Your task to perform on an android device: delete the emails in spam in the gmail app Image 0: 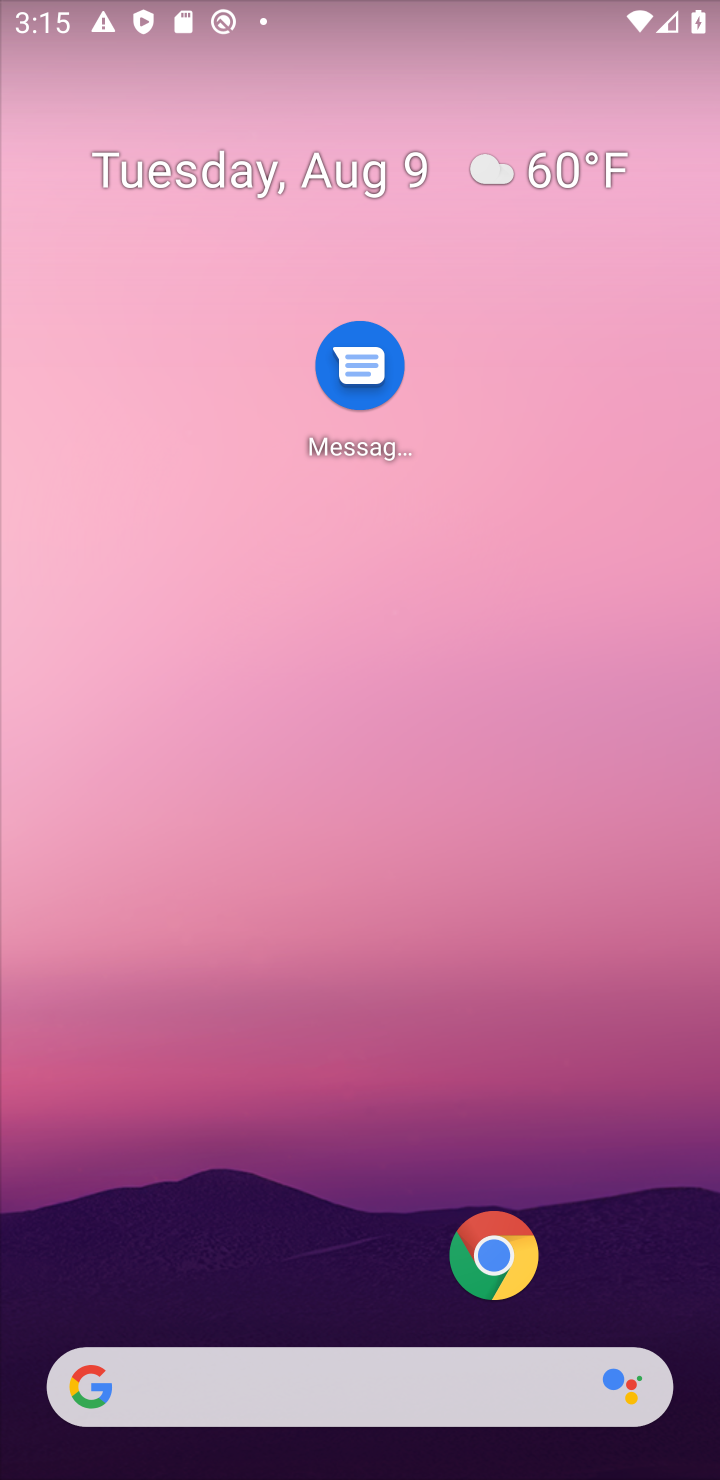
Step 0: drag from (293, 1105) to (314, 538)
Your task to perform on an android device: delete the emails in spam in the gmail app Image 1: 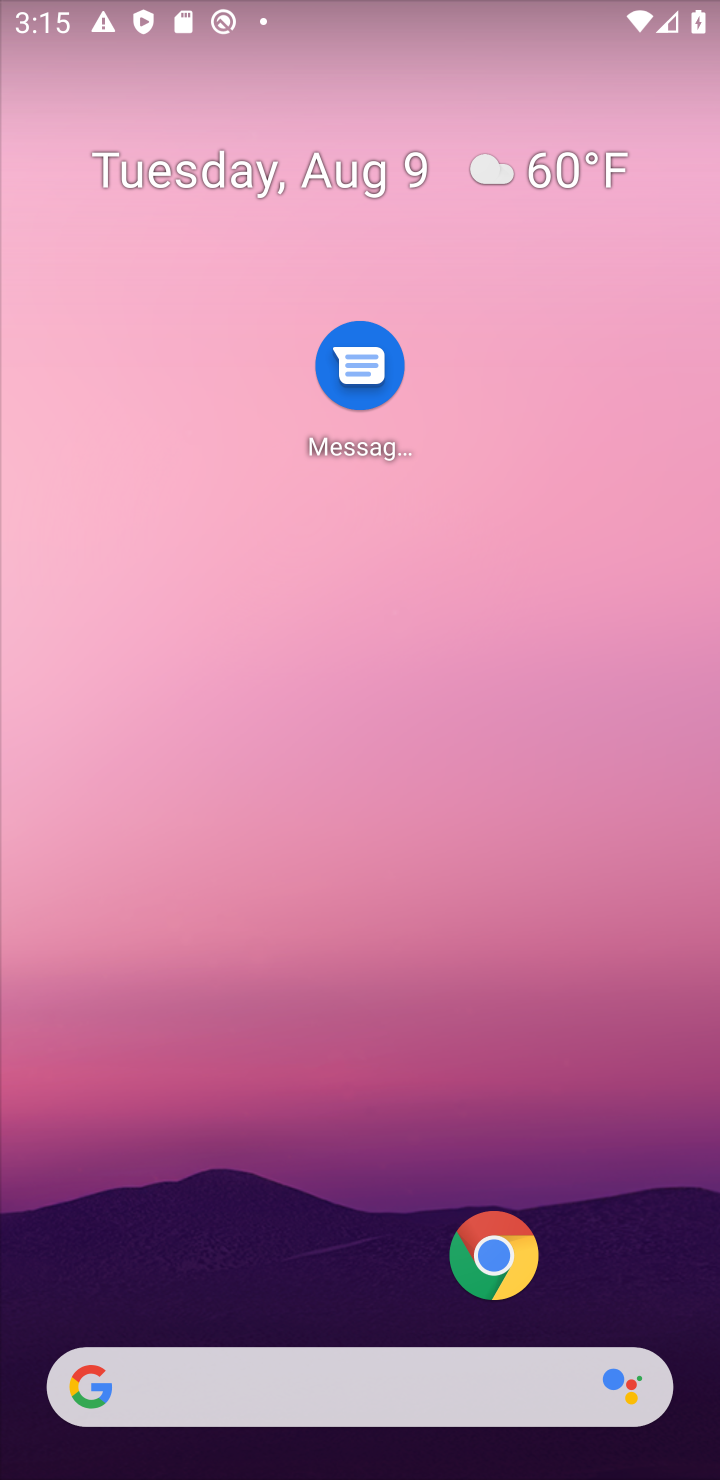
Step 1: drag from (308, 1234) to (488, 595)
Your task to perform on an android device: delete the emails in spam in the gmail app Image 2: 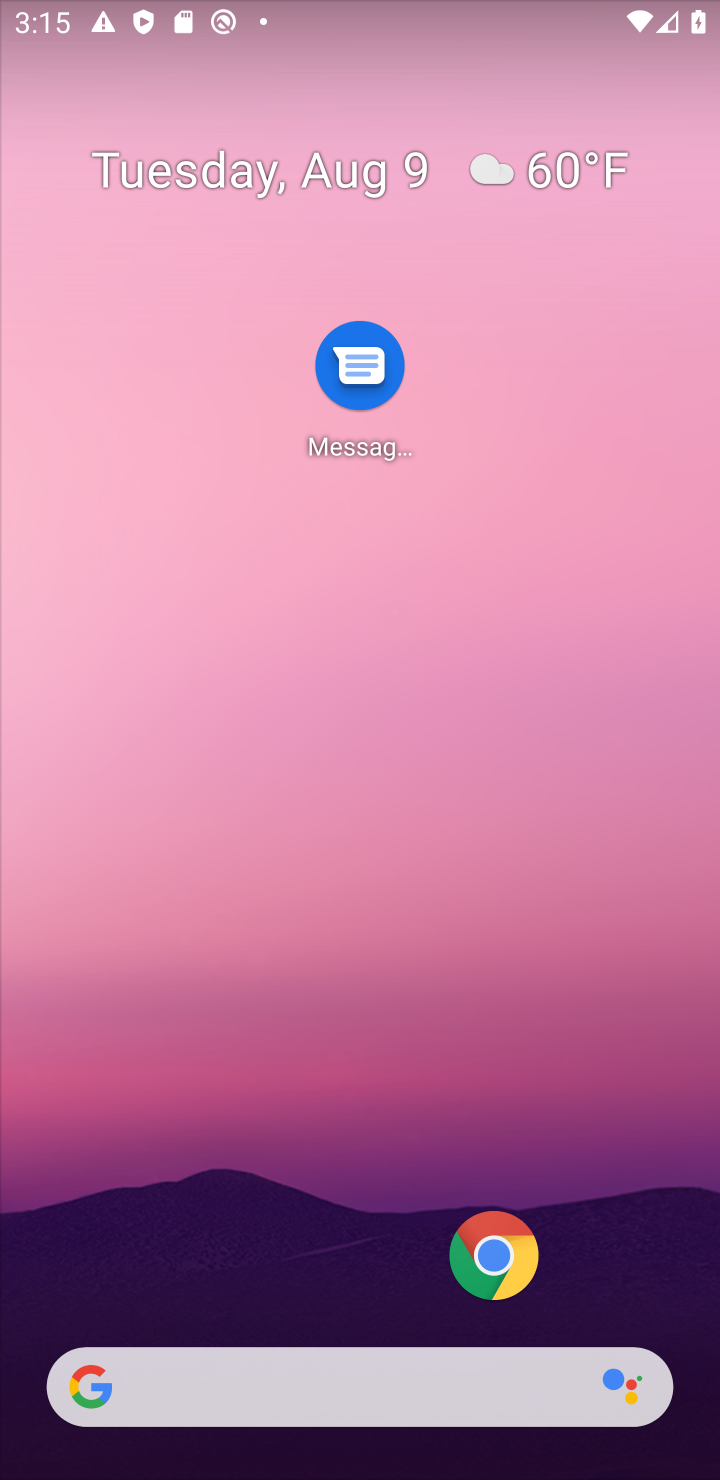
Step 2: drag from (215, 1335) to (336, 349)
Your task to perform on an android device: delete the emails in spam in the gmail app Image 3: 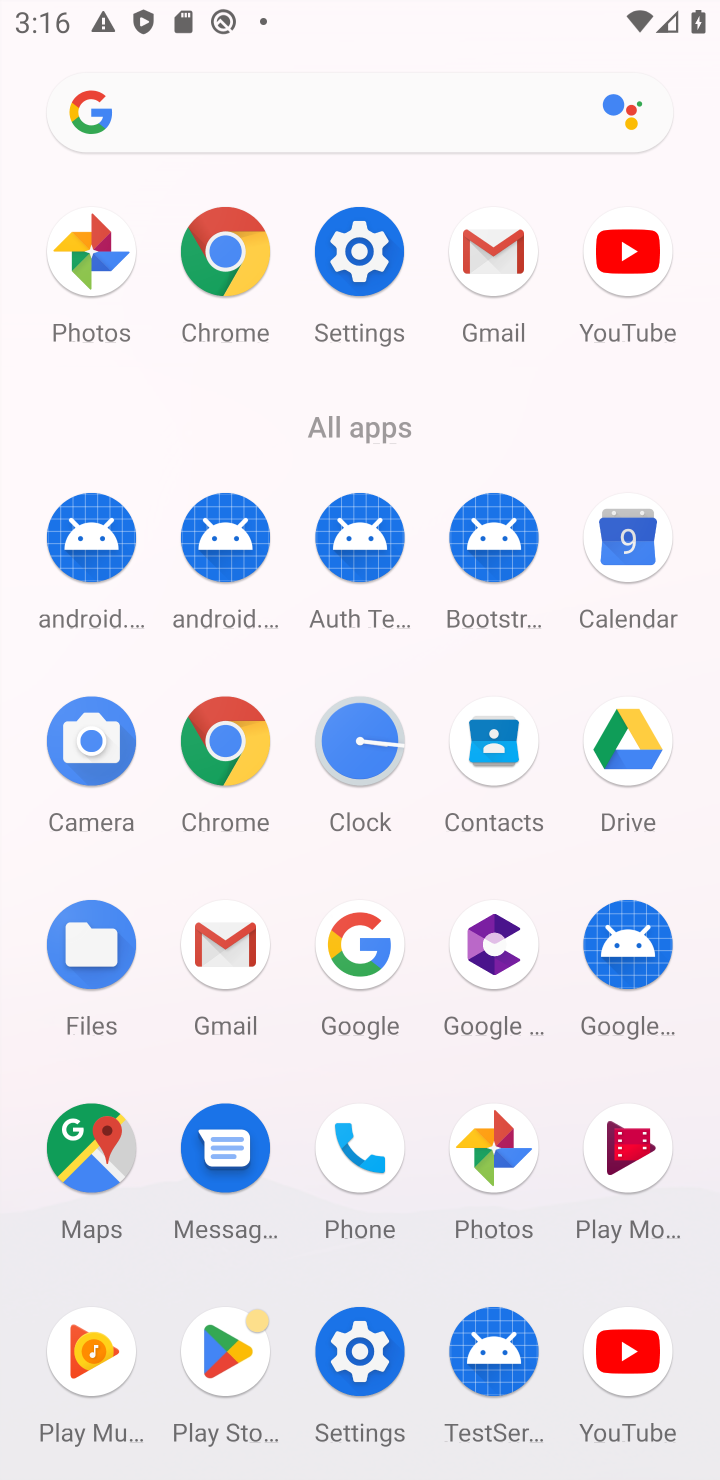
Step 3: click (242, 240)
Your task to perform on an android device: delete the emails in spam in the gmail app Image 4: 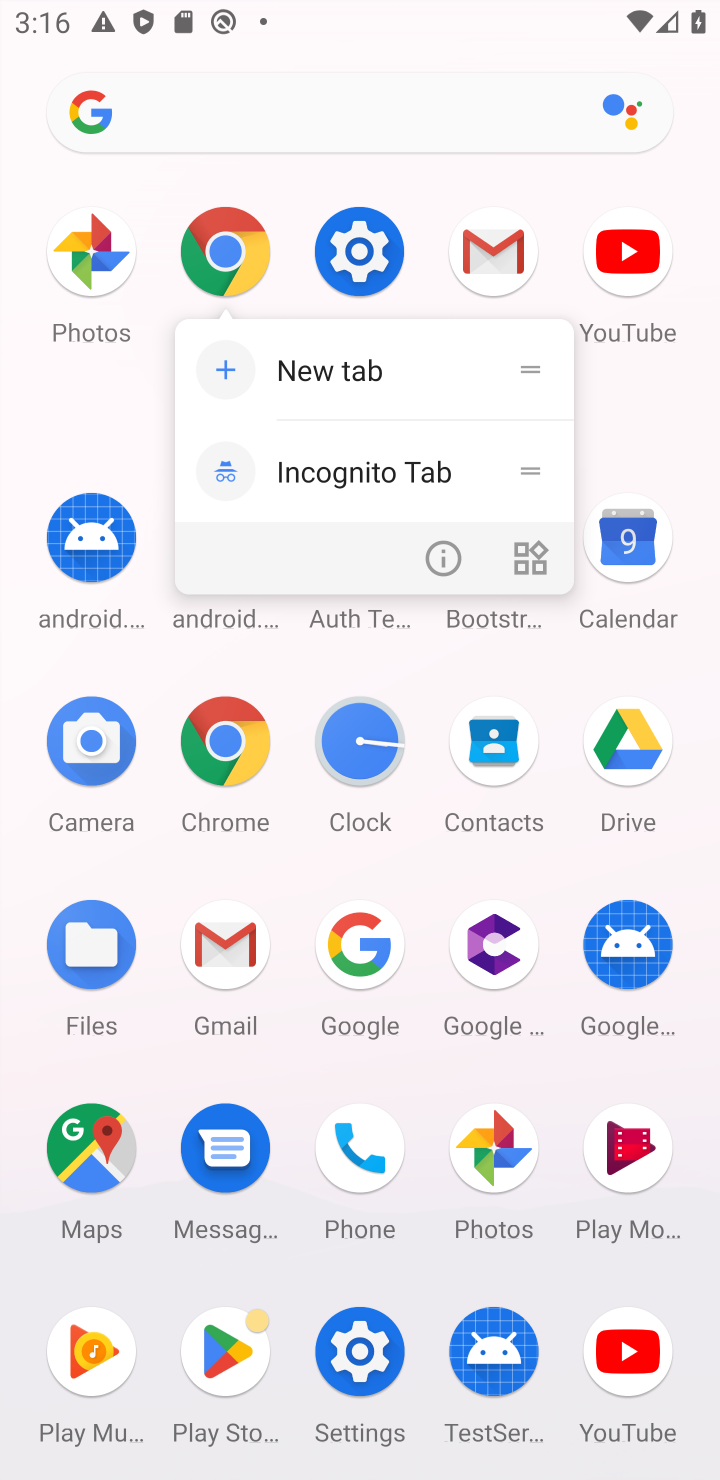
Step 4: click (230, 240)
Your task to perform on an android device: delete the emails in spam in the gmail app Image 5: 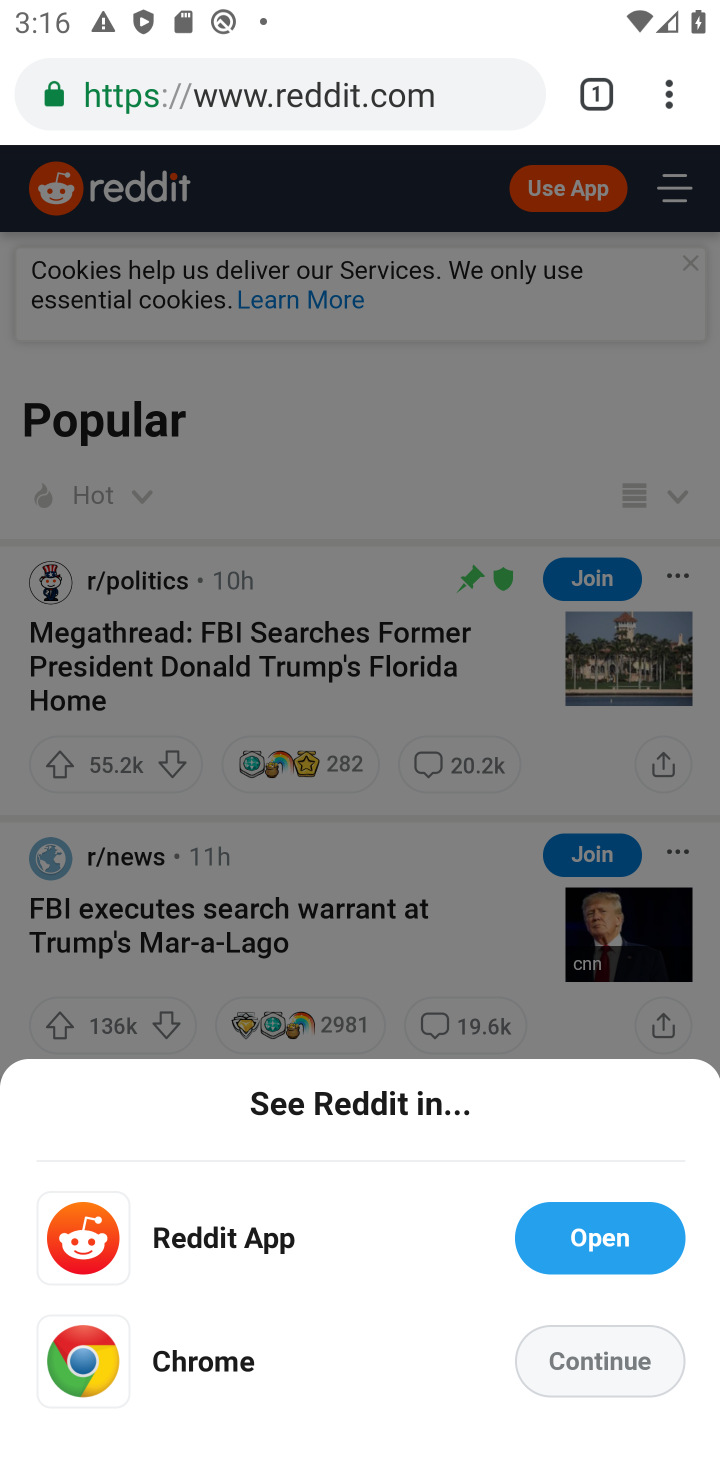
Step 5: press home button
Your task to perform on an android device: delete the emails in spam in the gmail app Image 6: 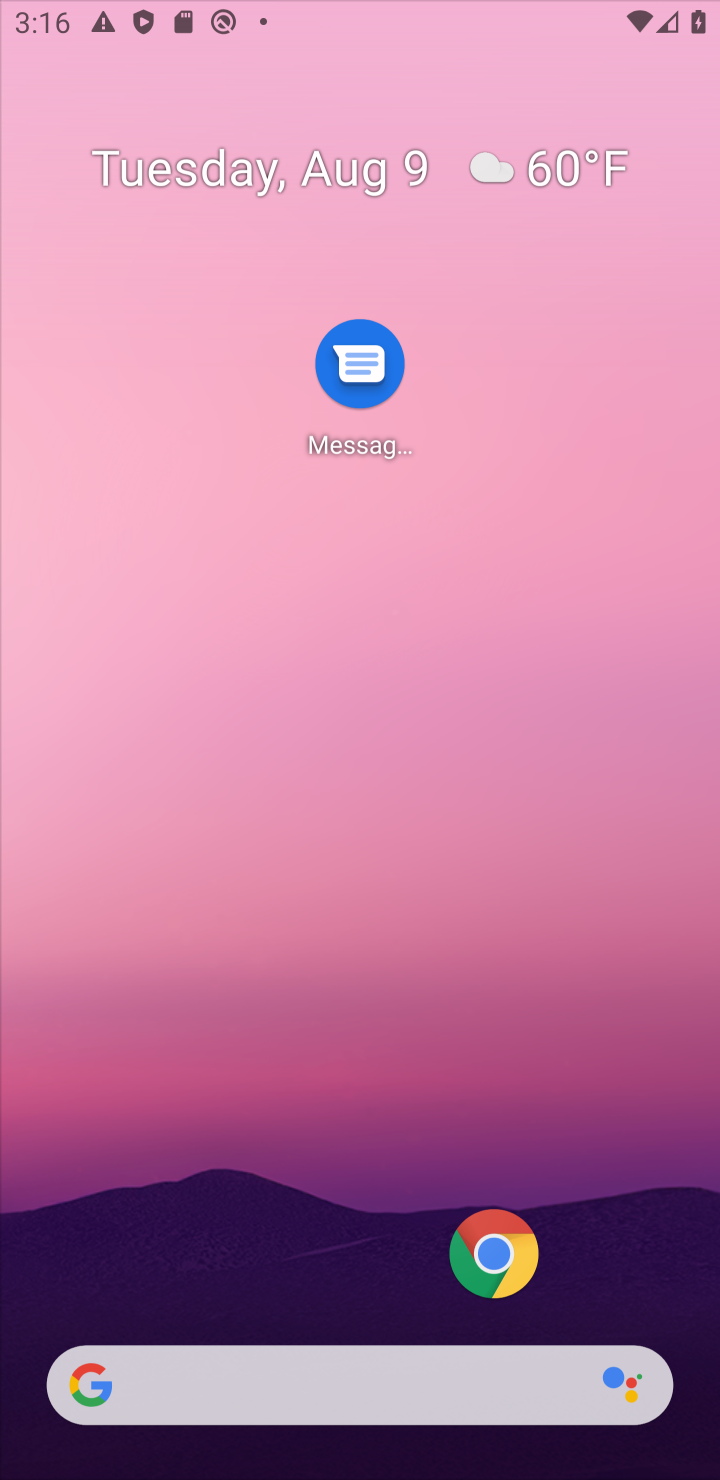
Step 6: press home button
Your task to perform on an android device: delete the emails in spam in the gmail app Image 7: 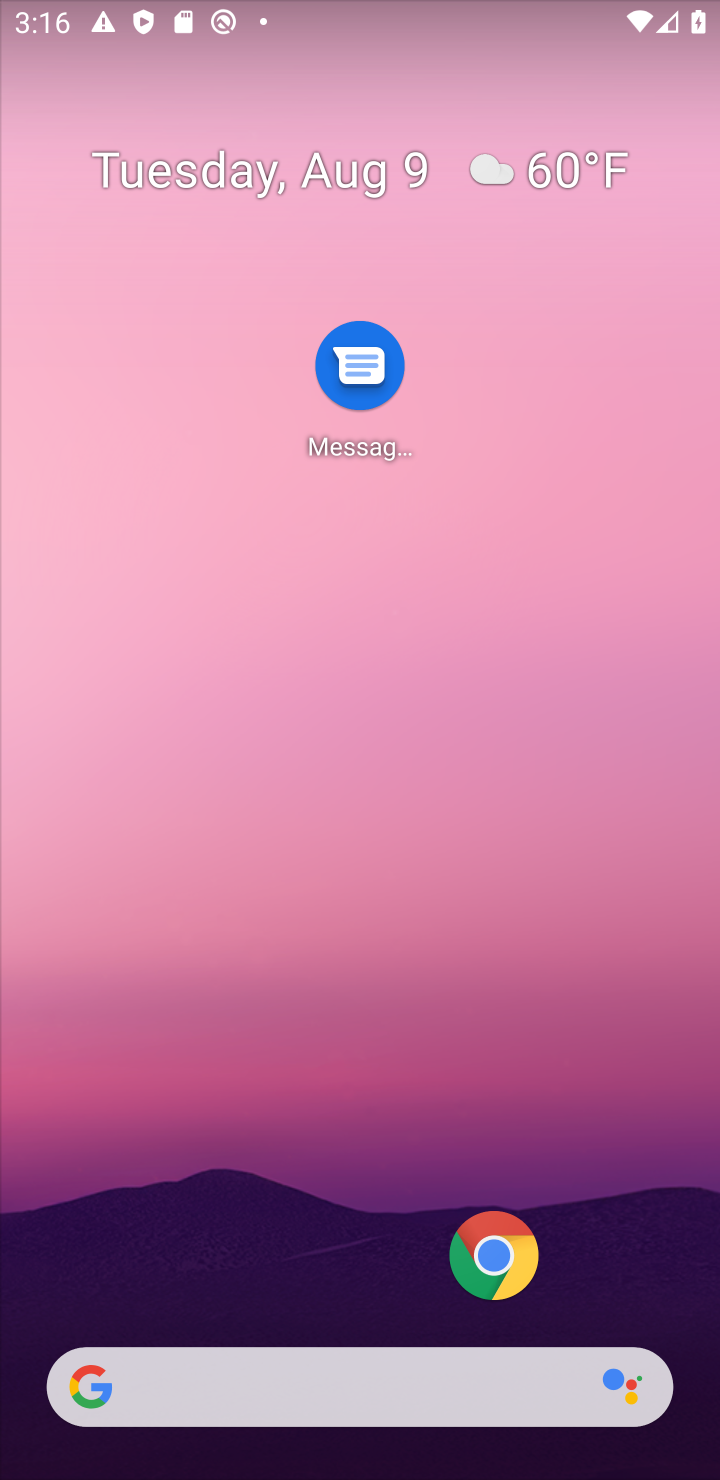
Step 7: drag from (212, 1157) to (338, 438)
Your task to perform on an android device: delete the emails in spam in the gmail app Image 8: 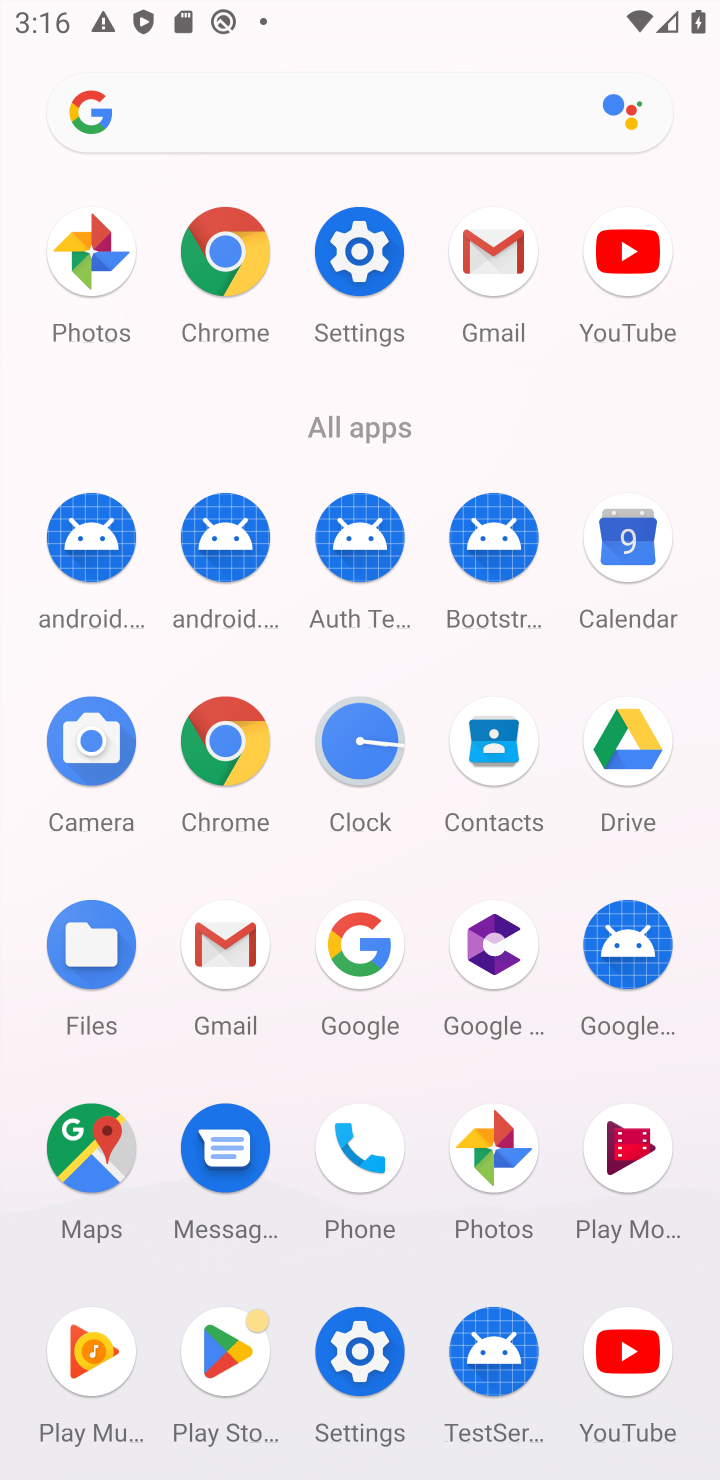
Step 8: click (192, 929)
Your task to perform on an android device: delete the emails in spam in the gmail app Image 9: 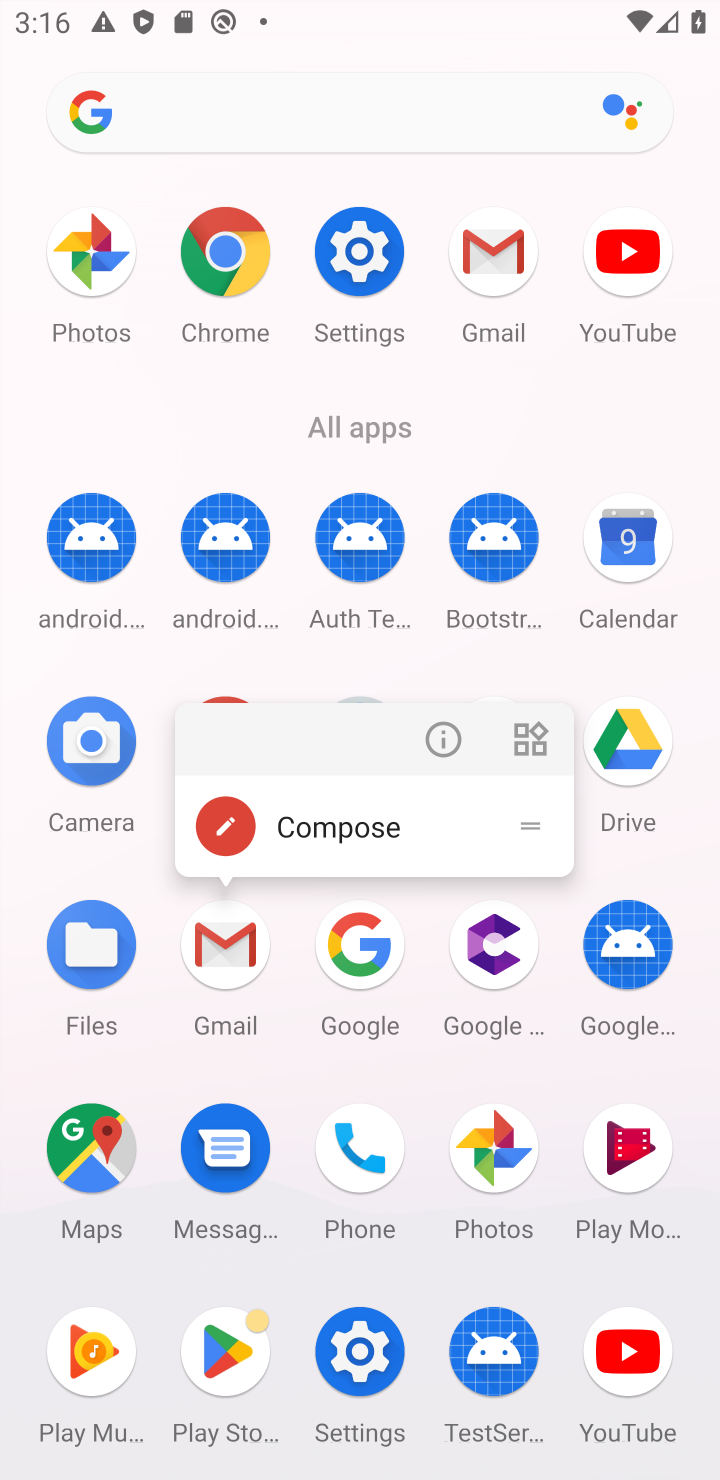
Step 9: click (247, 929)
Your task to perform on an android device: delete the emails in spam in the gmail app Image 10: 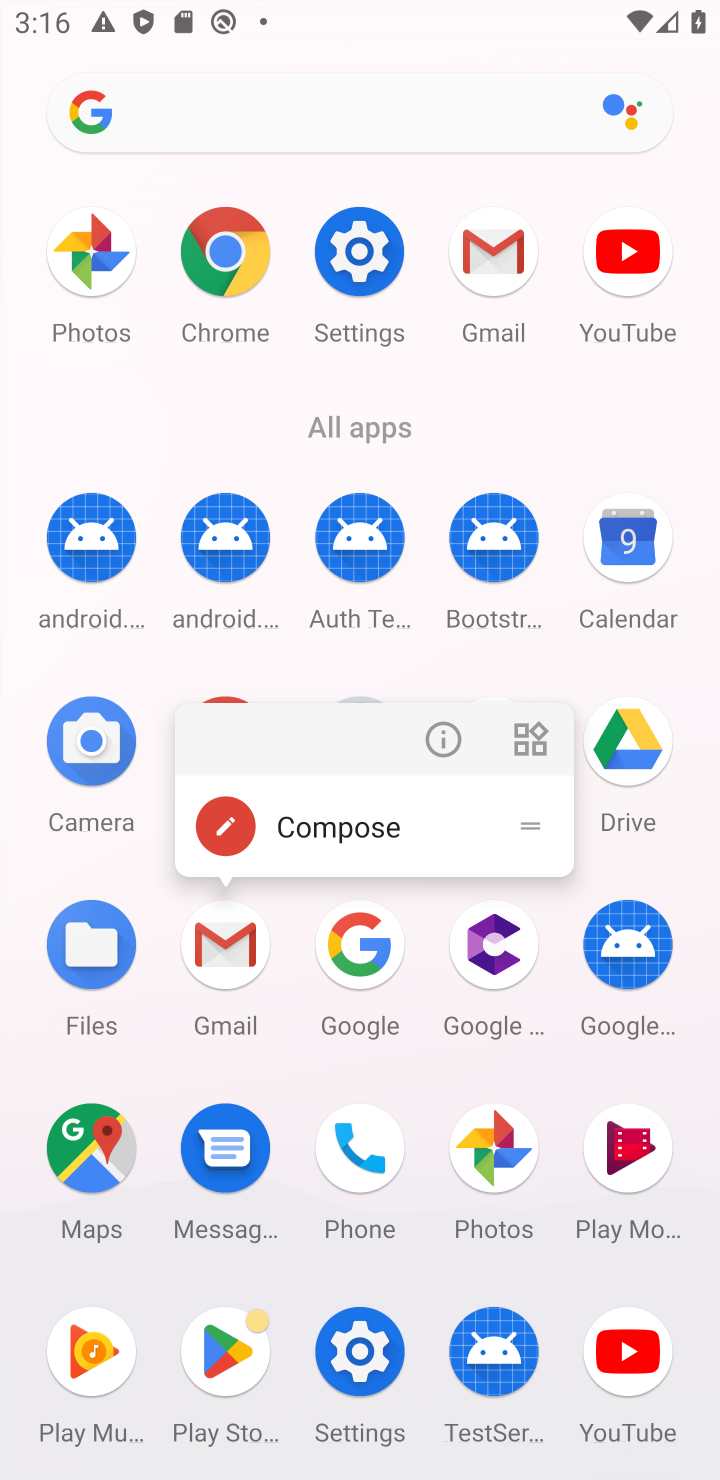
Step 10: click (238, 956)
Your task to perform on an android device: delete the emails in spam in the gmail app Image 11: 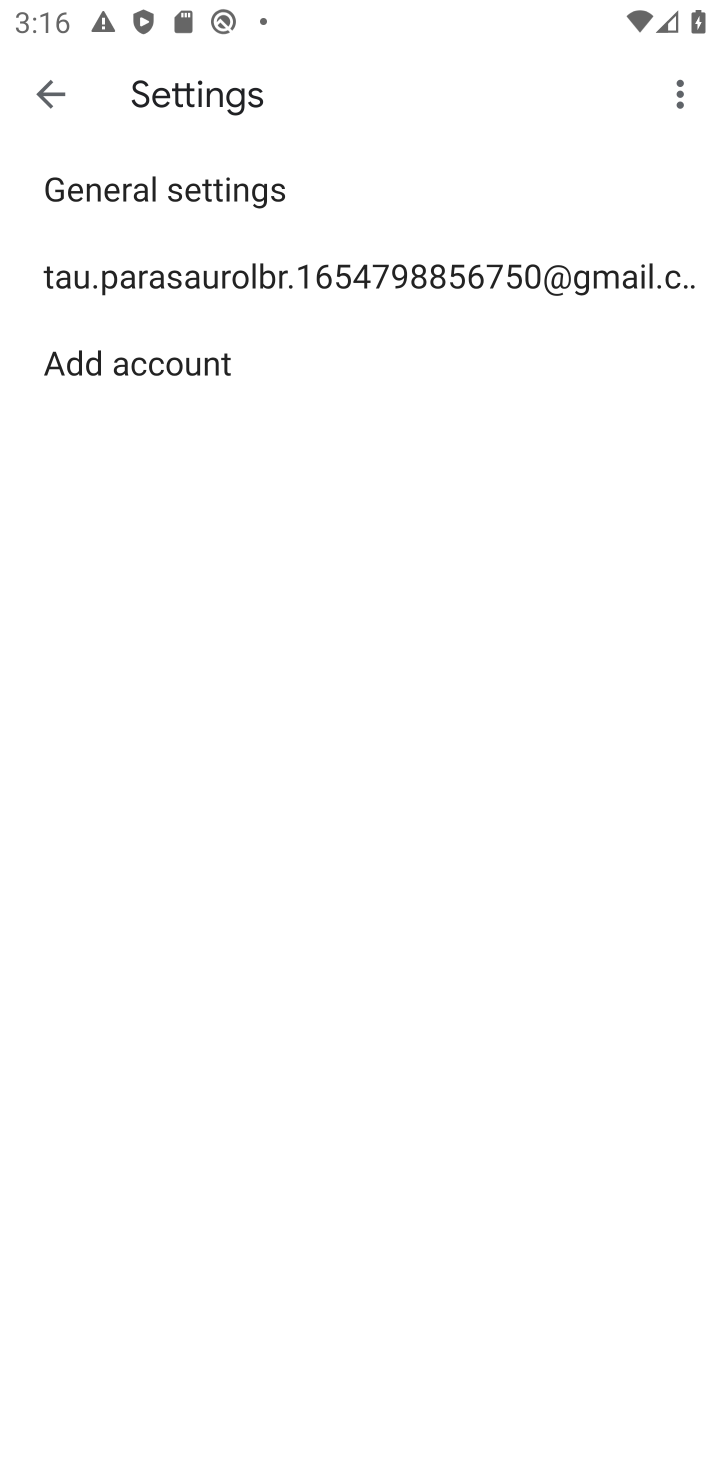
Step 11: click (53, 115)
Your task to perform on an android device: delete the emails in spam in the gmail app Image 12: 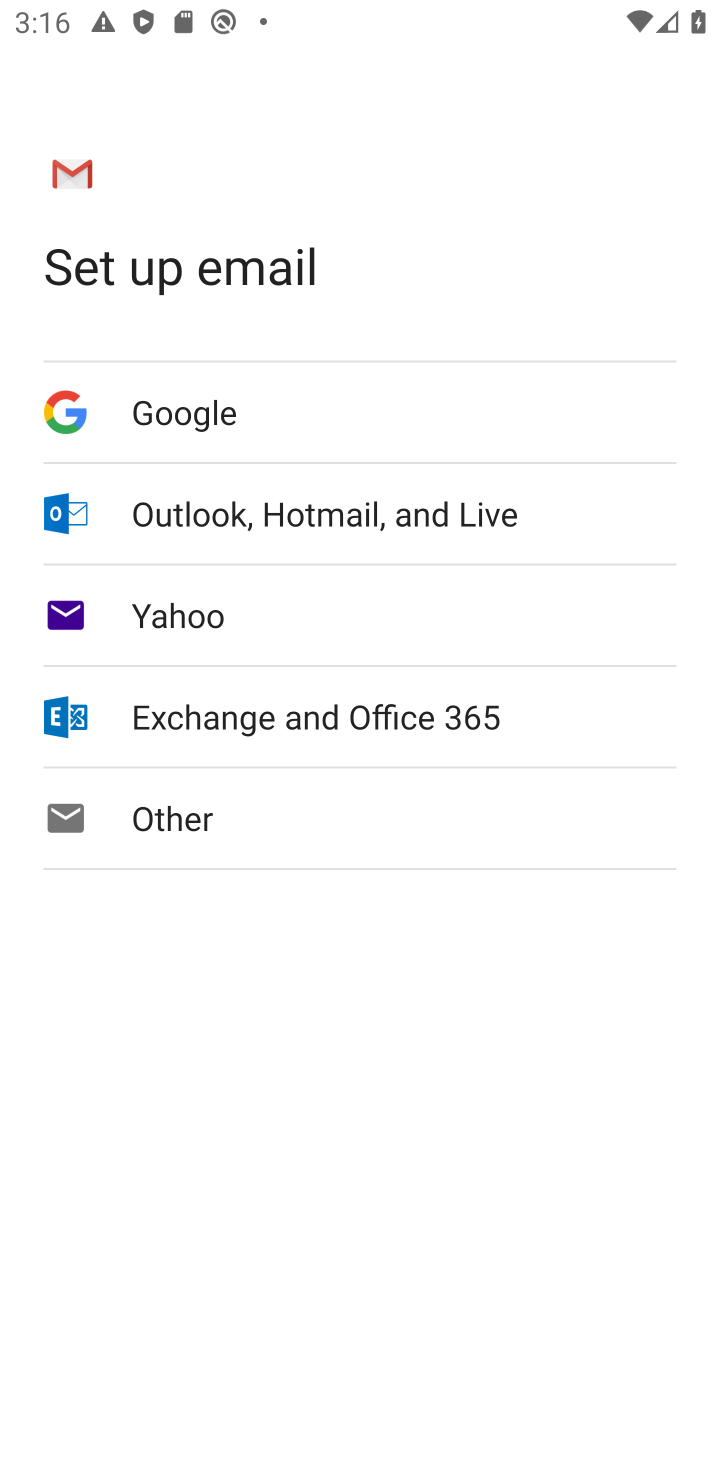
Step 12: click (62, 90)
Your task to perform on an android device: delete the emails in spam in the gmail app Image 13: 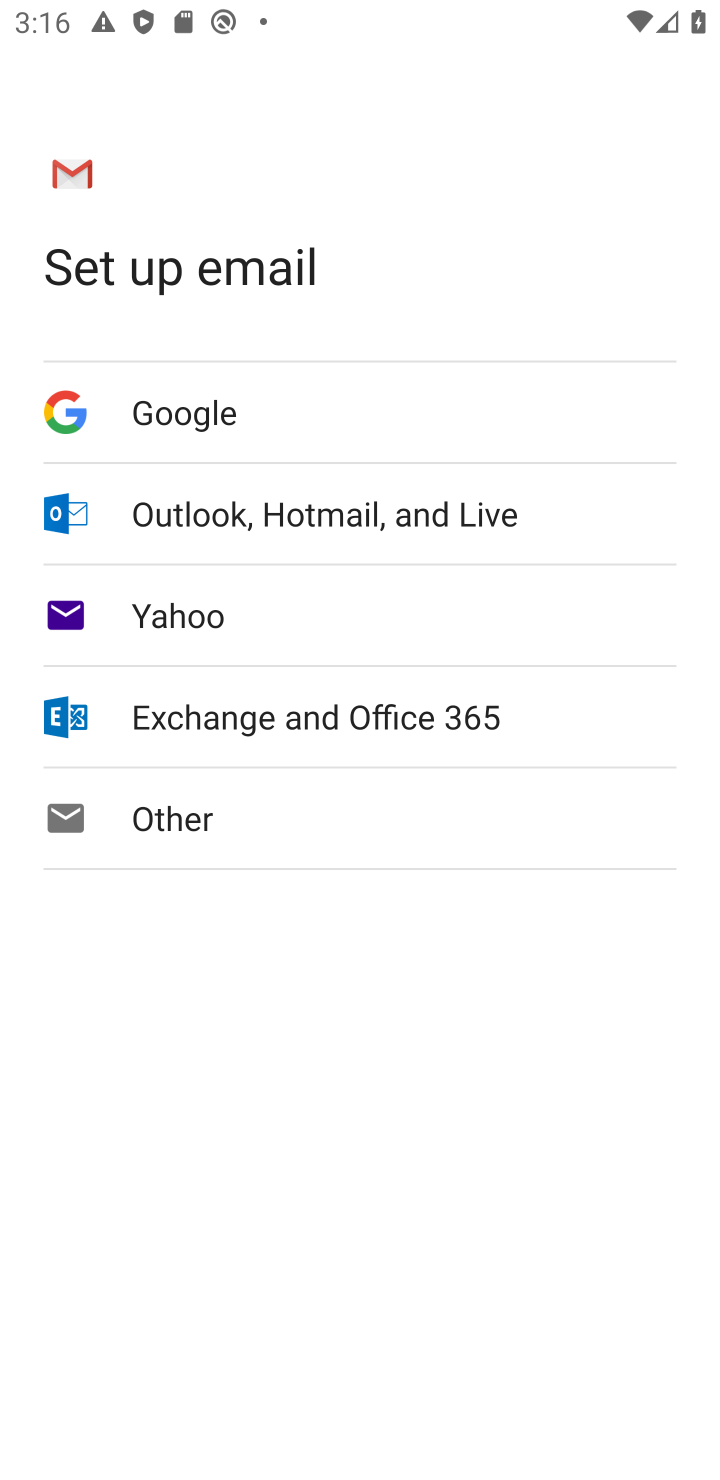
Step 13: press back button
Your task to perform on an android device: delete the emails in spam in the gmail app Image 14: 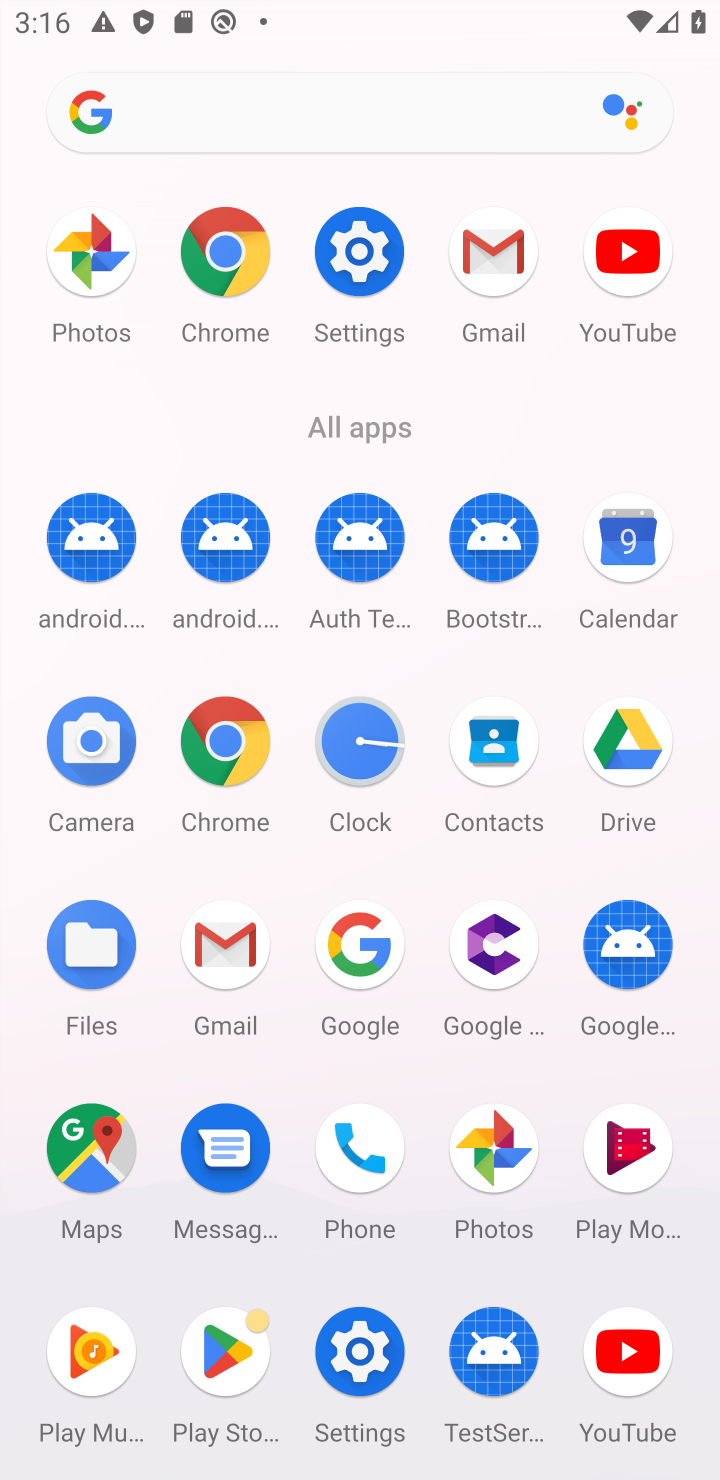
Step 14: click (491, 264)
Your task to perform on an android device: delete the emails in spam in the gmail app Image 15: 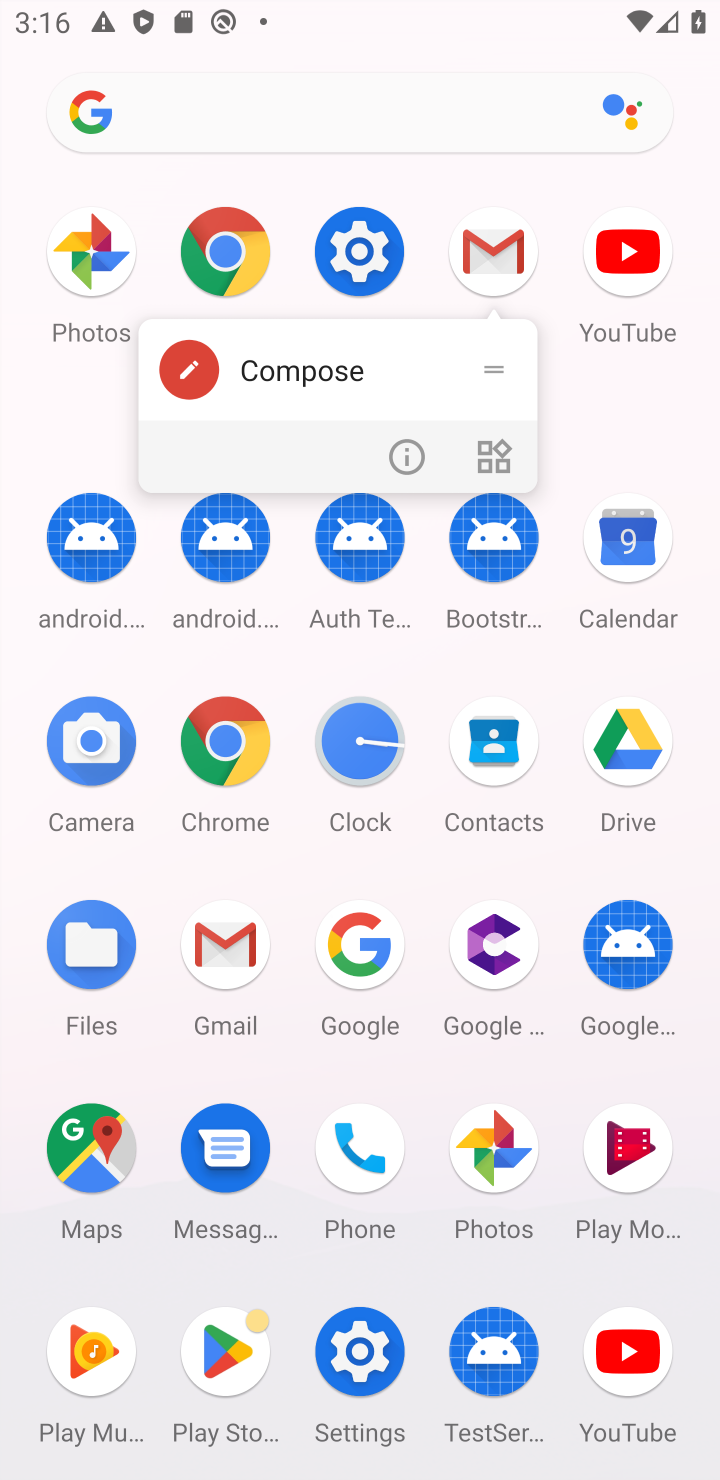
Step 15: click (478, 252)
Your task to perform on an android device: delete the emails in spam in the gmail app Image 16: 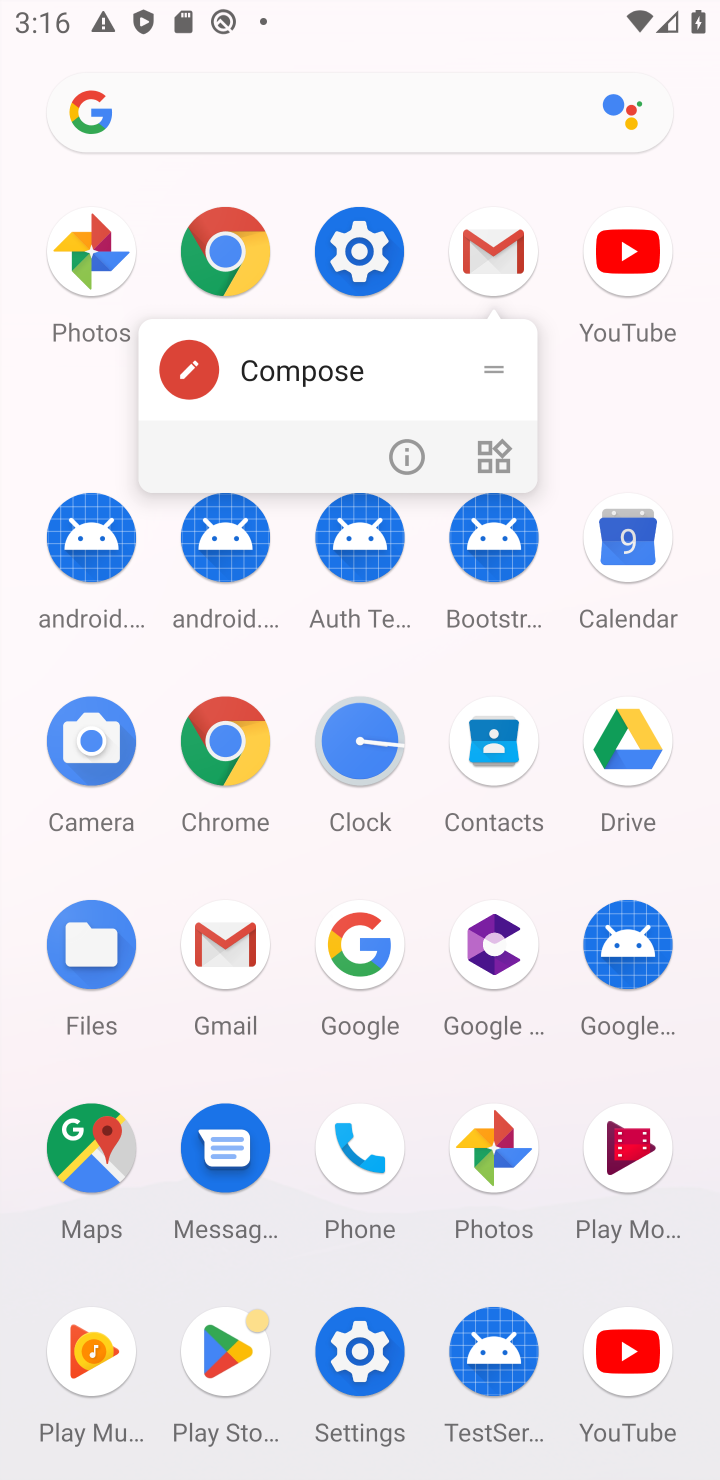
Step 16: click (478, 252)
Your task to perform on an android device: delete the emails in spam in the gmail app Image 17: 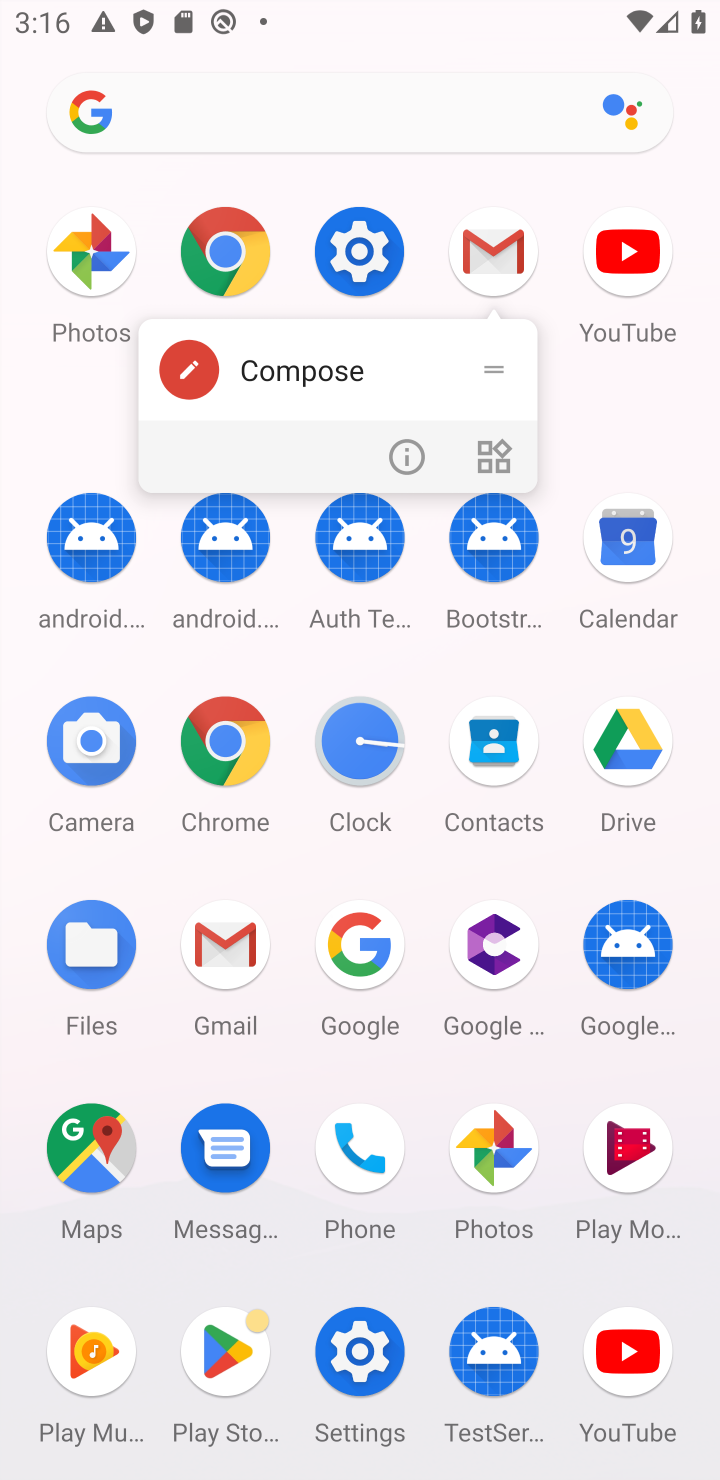
Step 17: click (478, 252)
Your task to perform on an android device: delete the emails in spam in the gmail app Image 18: 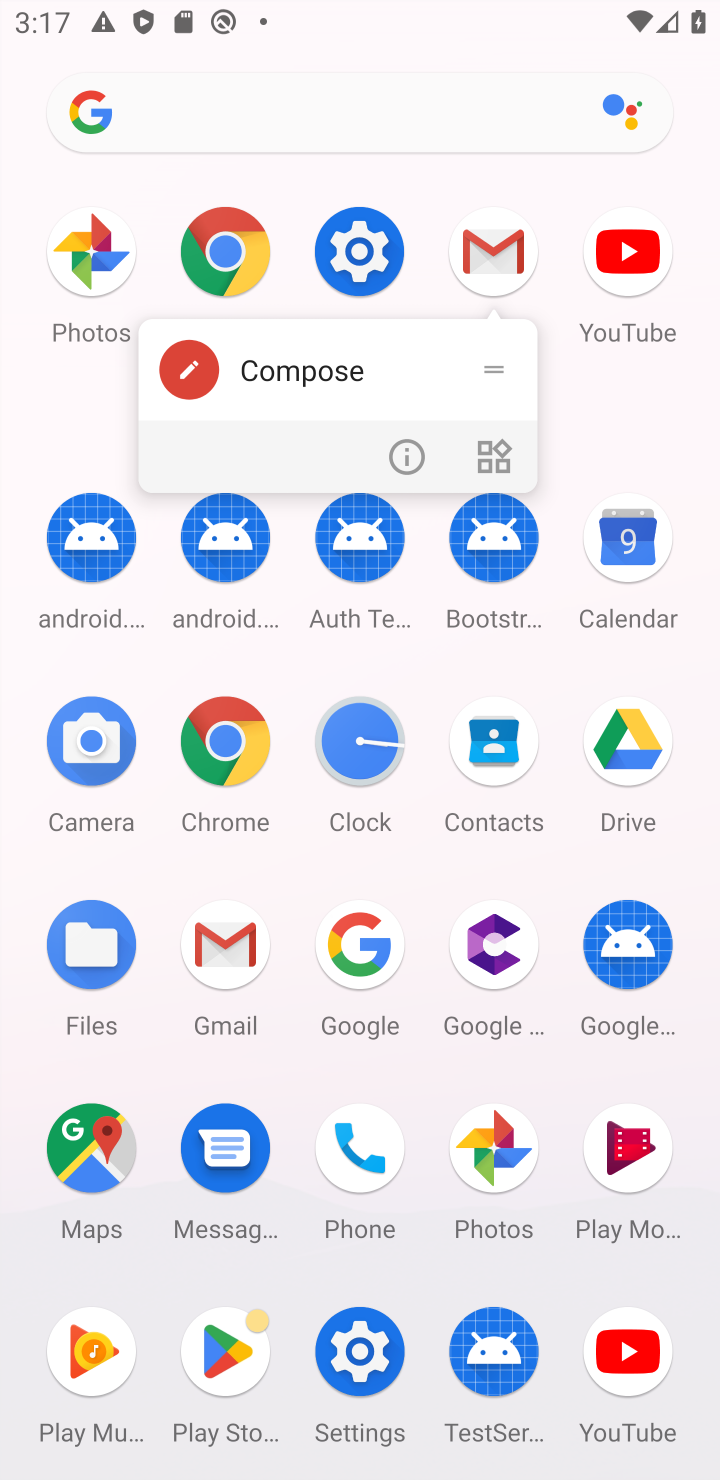
Step 18: click (478, 252)
Your task to perform on an android device: delete the emails in spam in the gmail app Image 19: 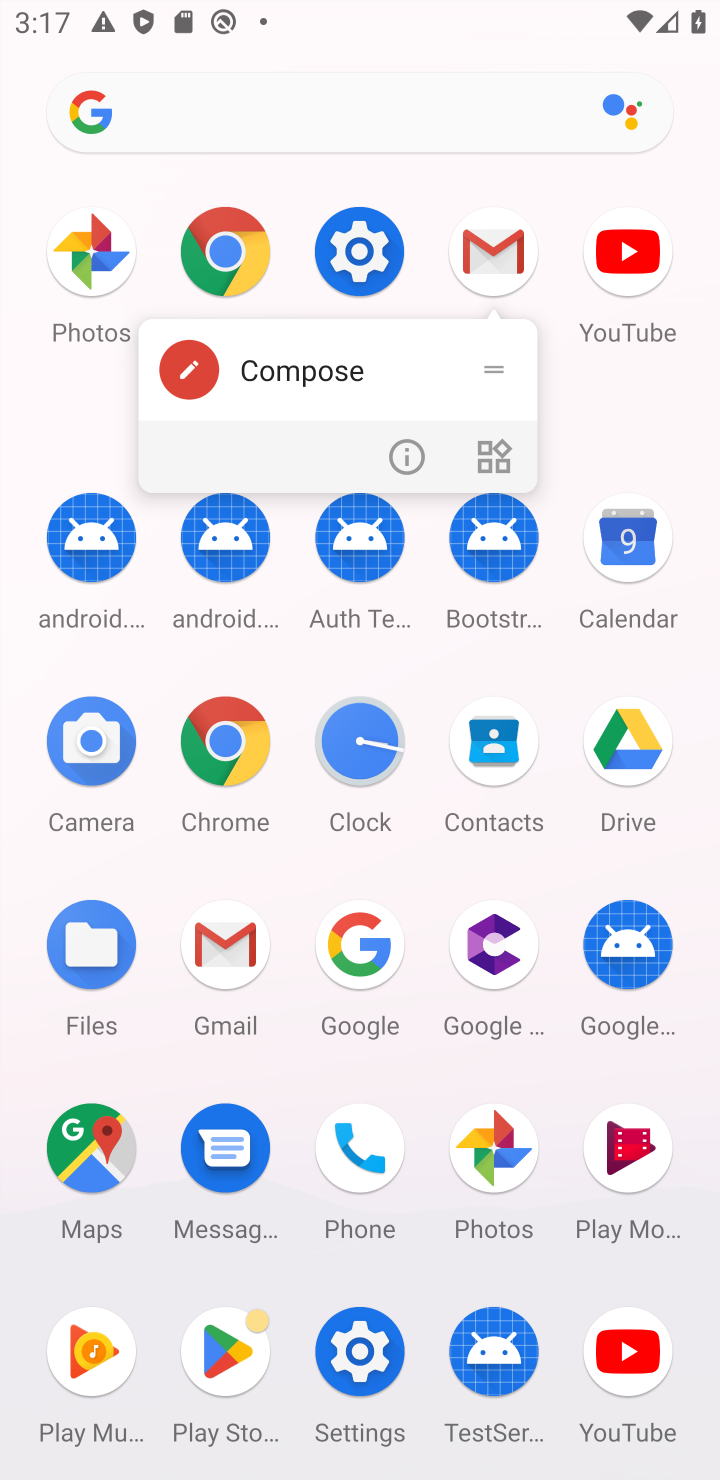
Step 19: click (212, 939)
Your task to perform on an android device: delete the emails in spam in the gmail app Image 20: 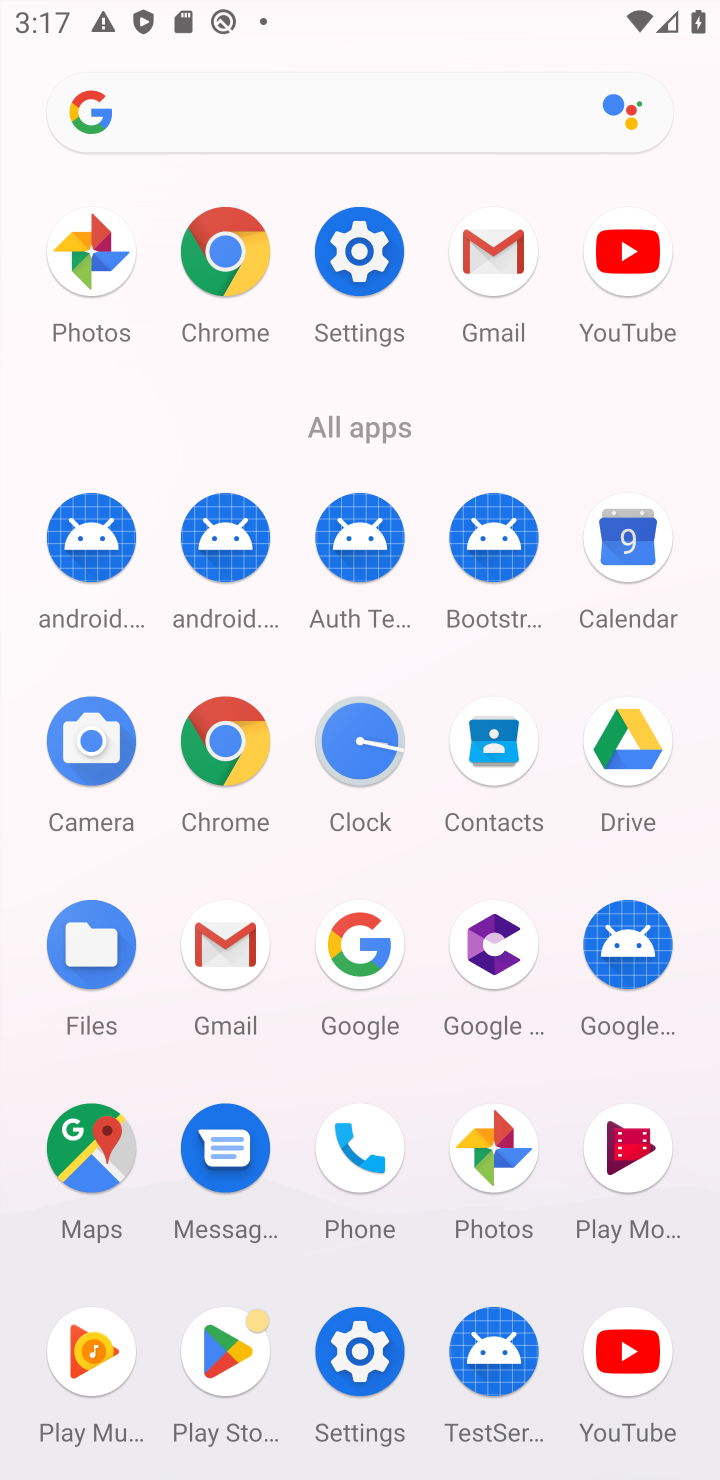
Step 20: click (473, 245)
Your task to perform on an android device: delete the emails in spam in the gmail app Image 21: 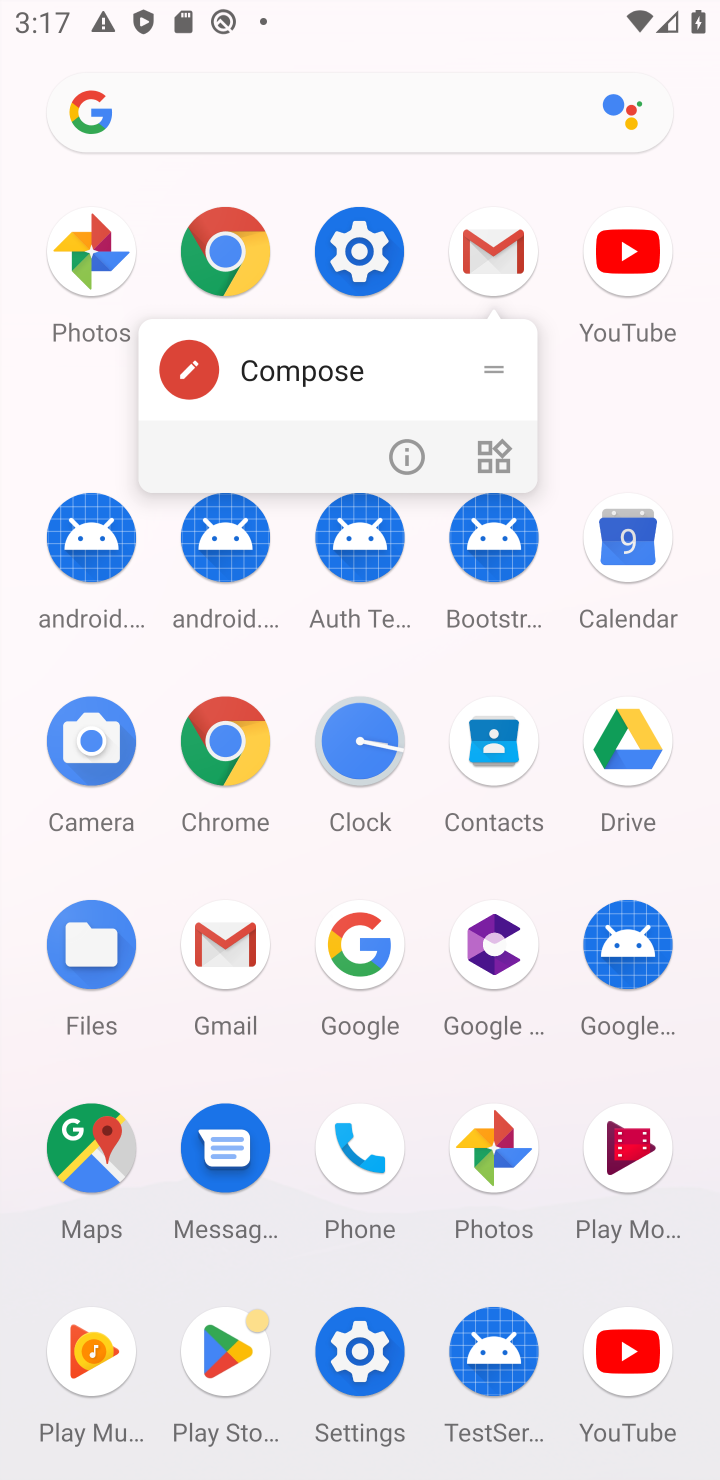
Step 21: click (218, 925)
Your task to perform on an android device: delete the emails in spam in the gmail app Image 22: 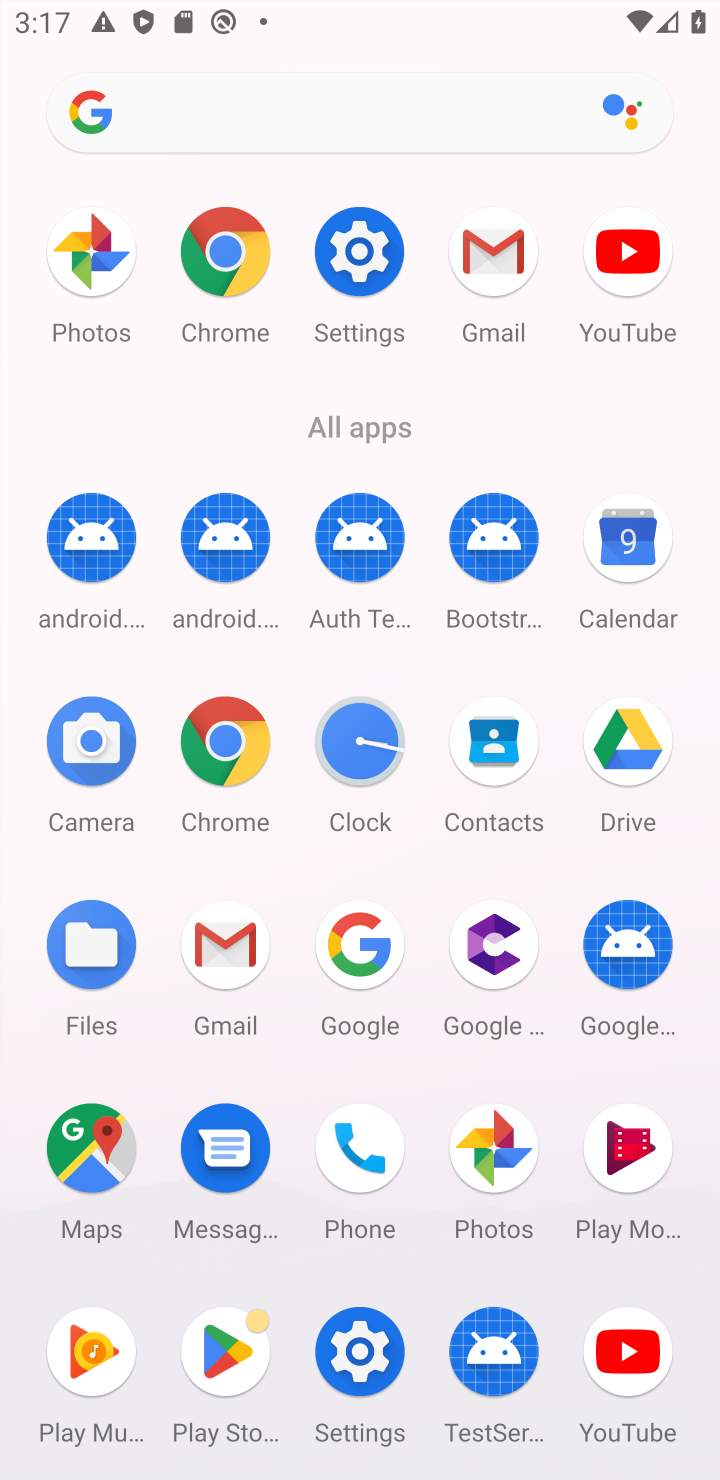
Step 22: click (218, 925)
Your task to perform on an android device: delete the emails in spam in the gmail app Image 23: 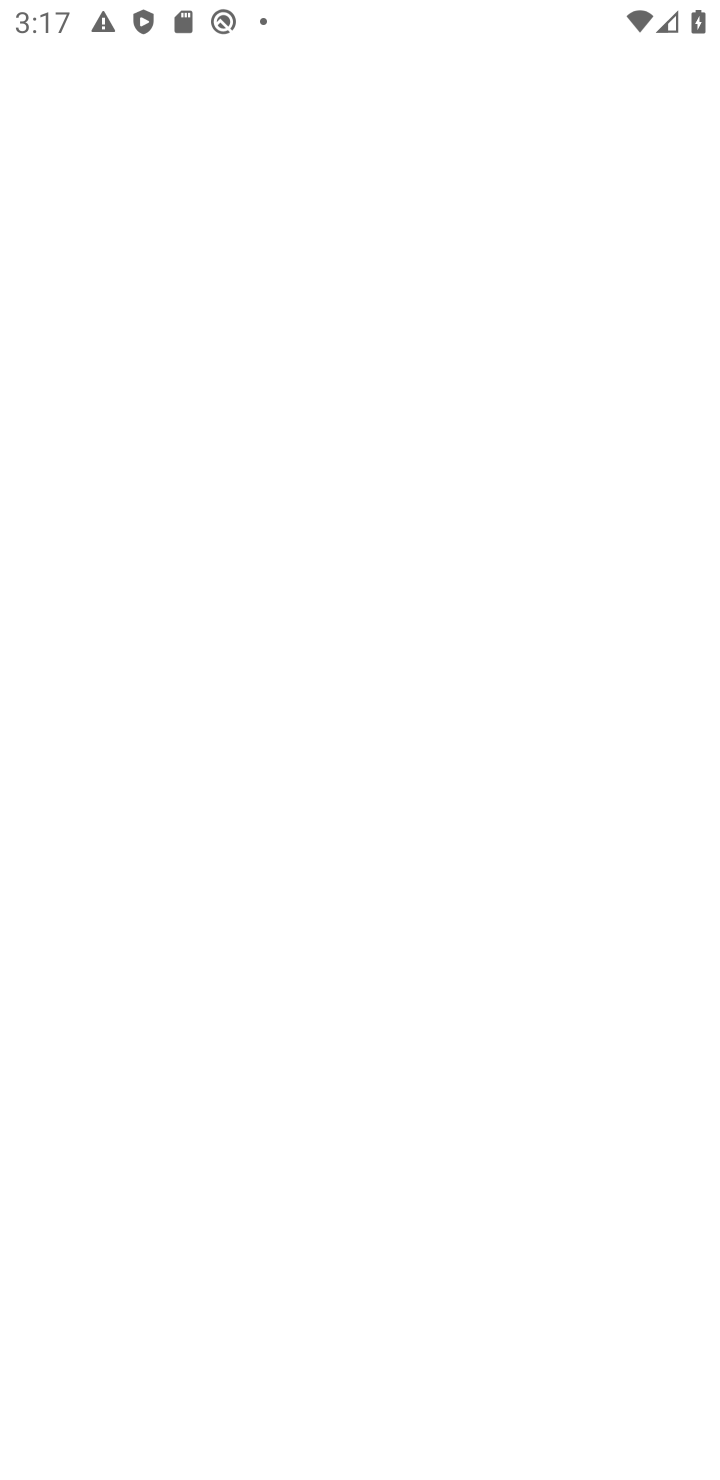
Step 23: click (218, 925)
Your task to perform on an android device: delete the emails in spam in the gmail app Image 24: 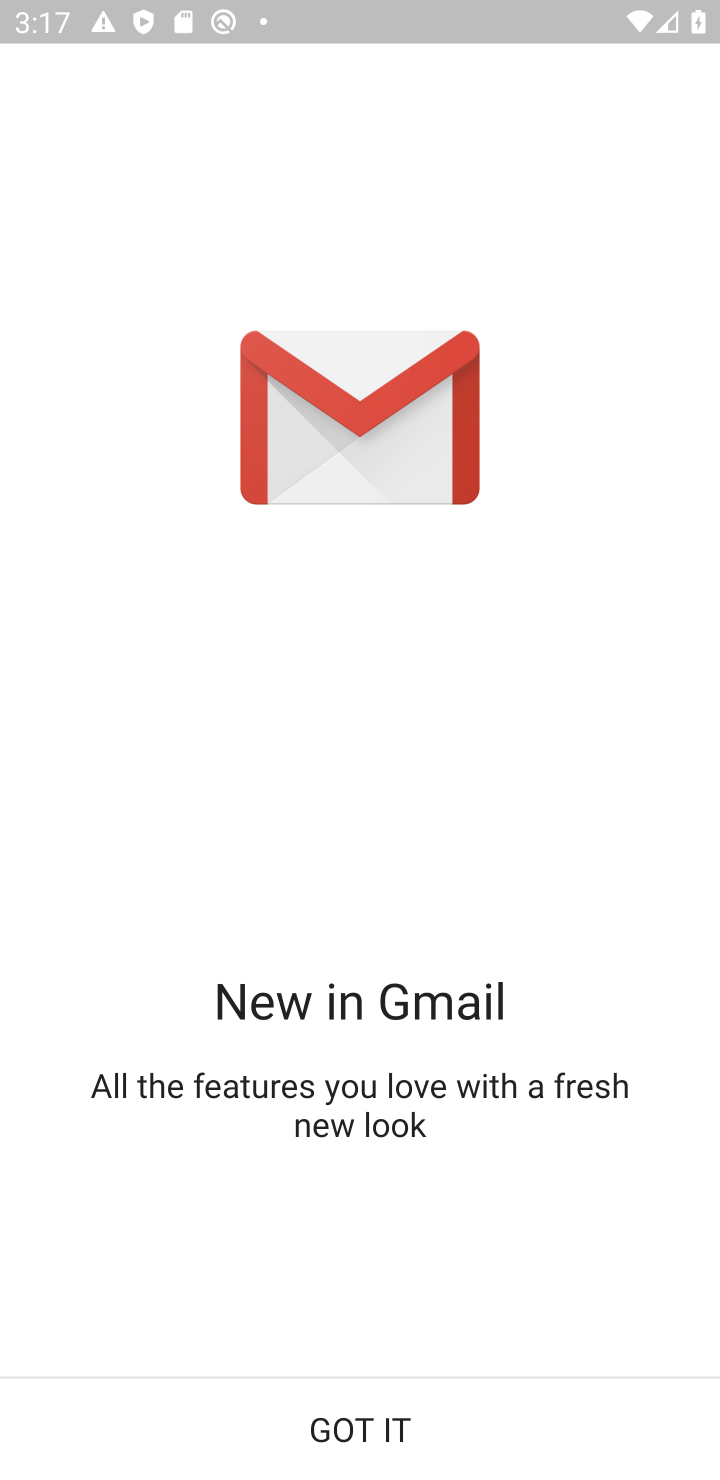
Step 24: click (397, 1397)
Your task to perform on an android device: delete the emails in spam in the gmail app Image 25: 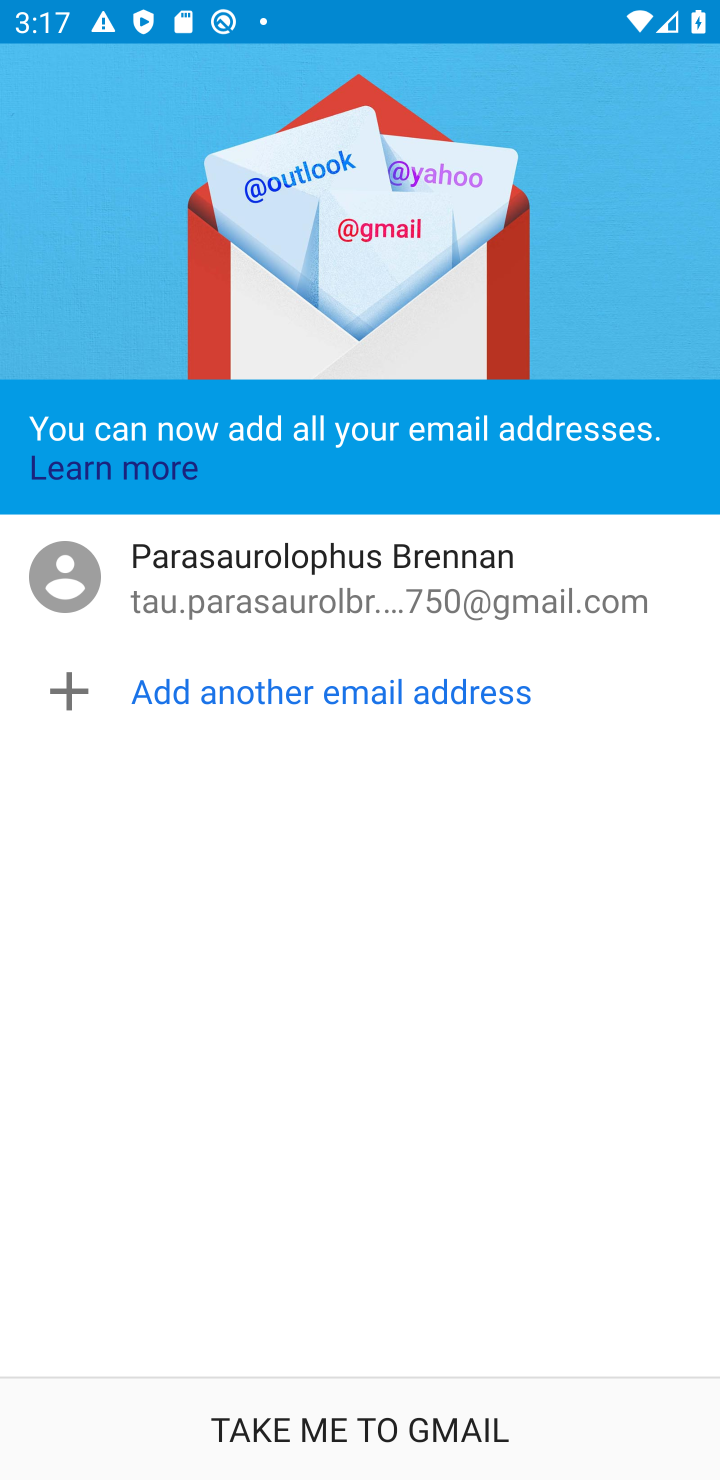
Step 25: click (358, 1417)
Your task to perform on an android device: delete the emails in spam in the gmail app Image 26: 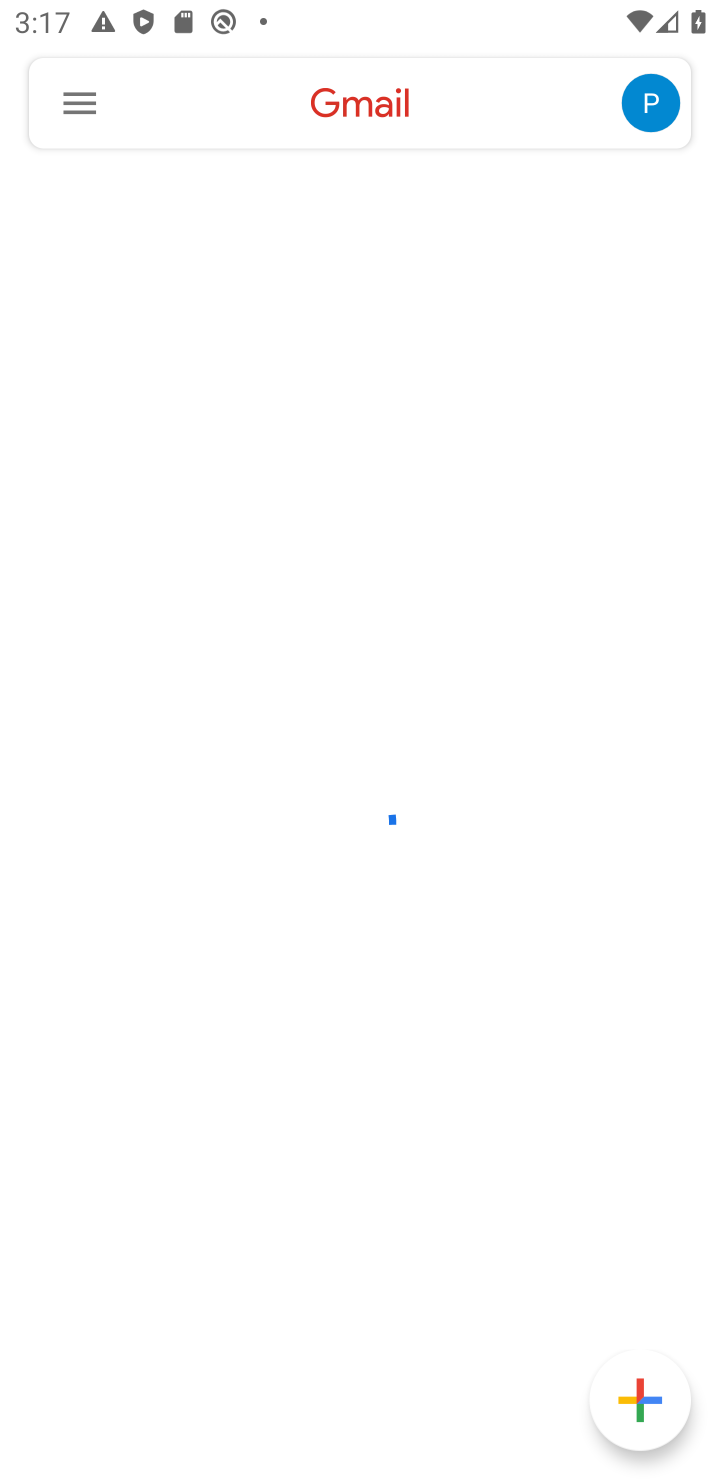
Step 26: click (67, 87)
Your task to perform on an android device: delete the emails in spam in the gmail app Image 27: 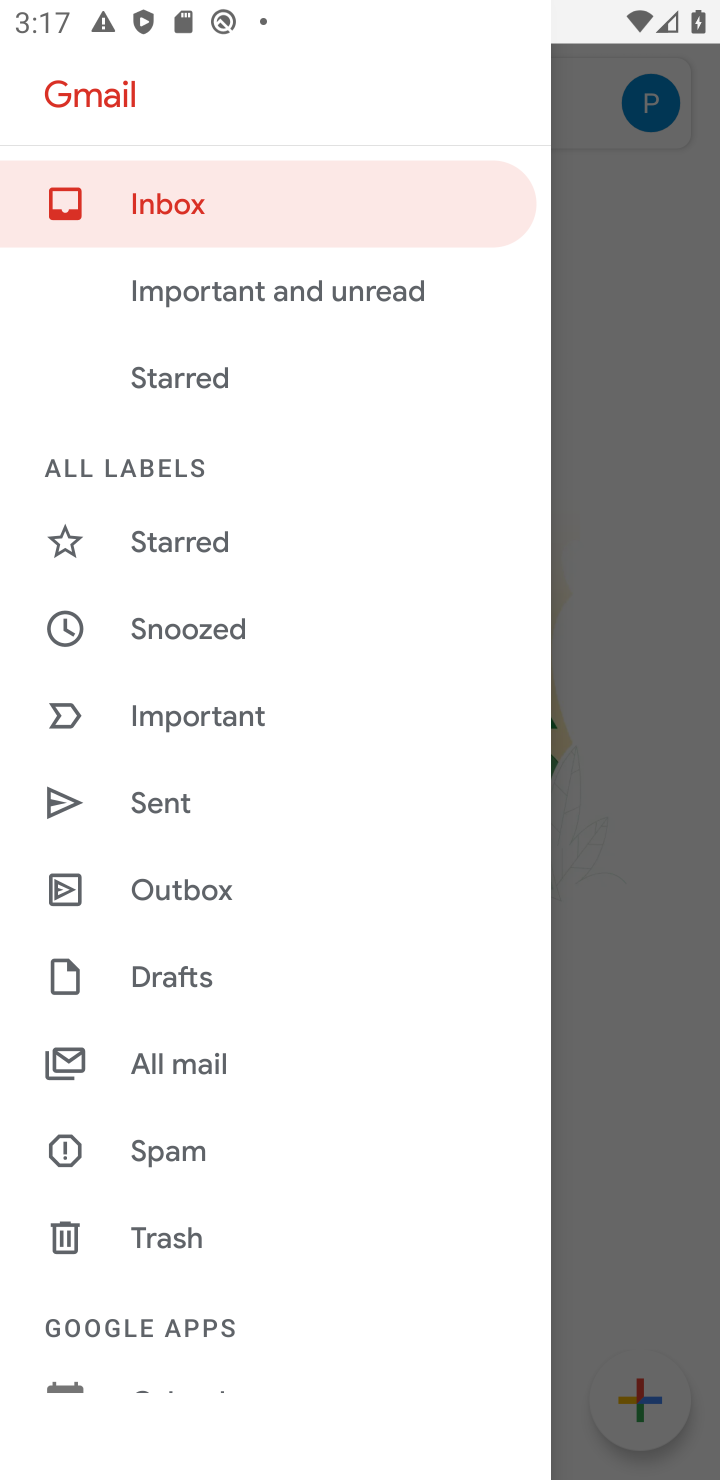
Step 27: drag from (252, 1223) to (361, 447)
Your task to perform on an android device: delete the emails in spam in the gmail app Image 28: 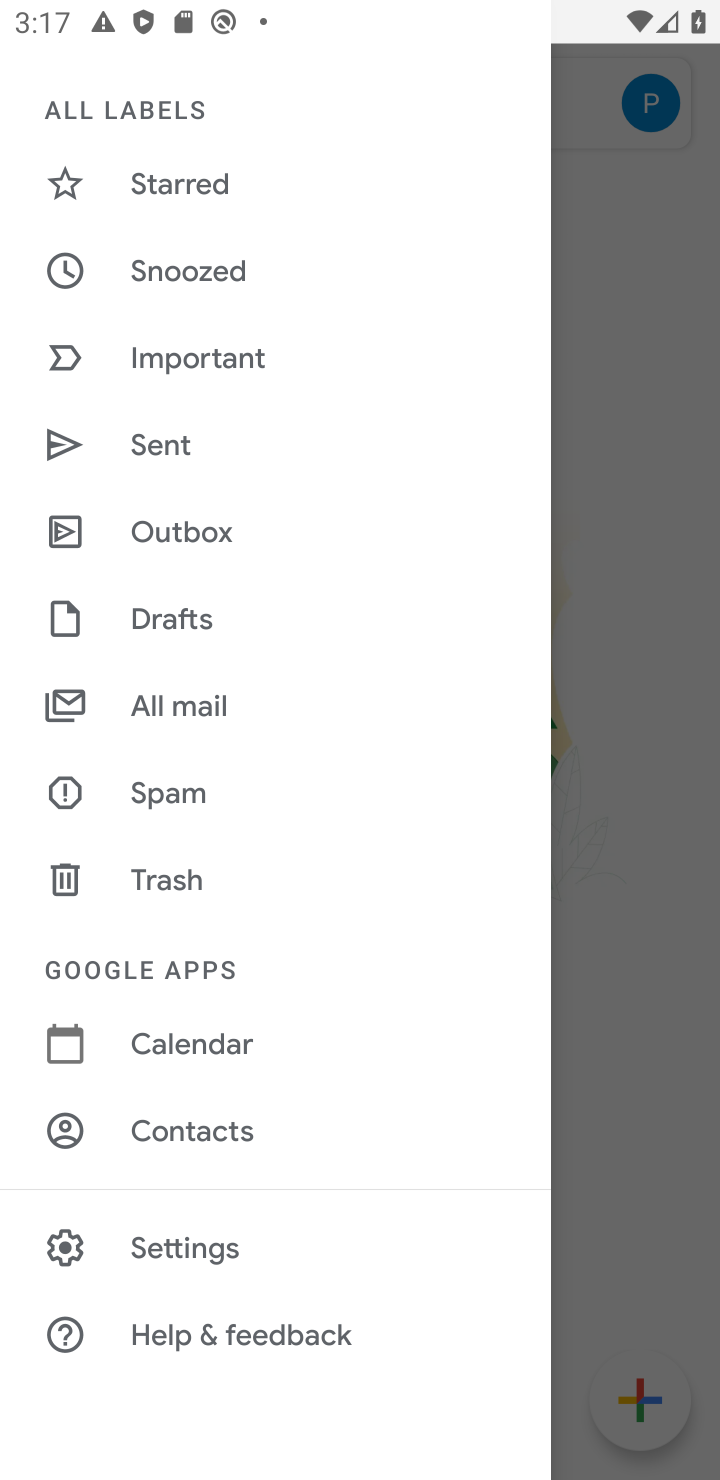
Step 28: click (191, 710)
Your task to perform on an android device: delete the emails in spam in the gmail app Image 29: 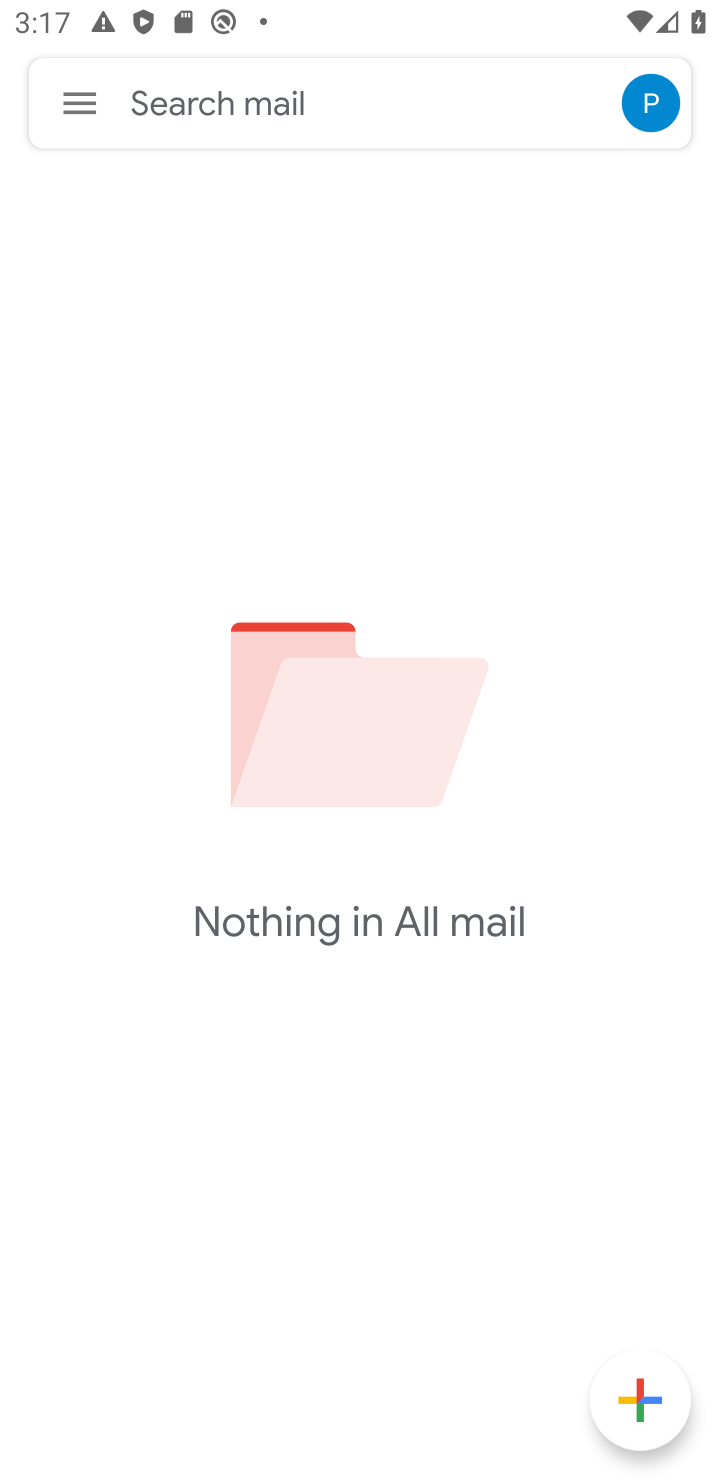
Step 29: click (62, 92)
Your task to perform on an android device: delete the emails in spam in the gmail app Image 30: 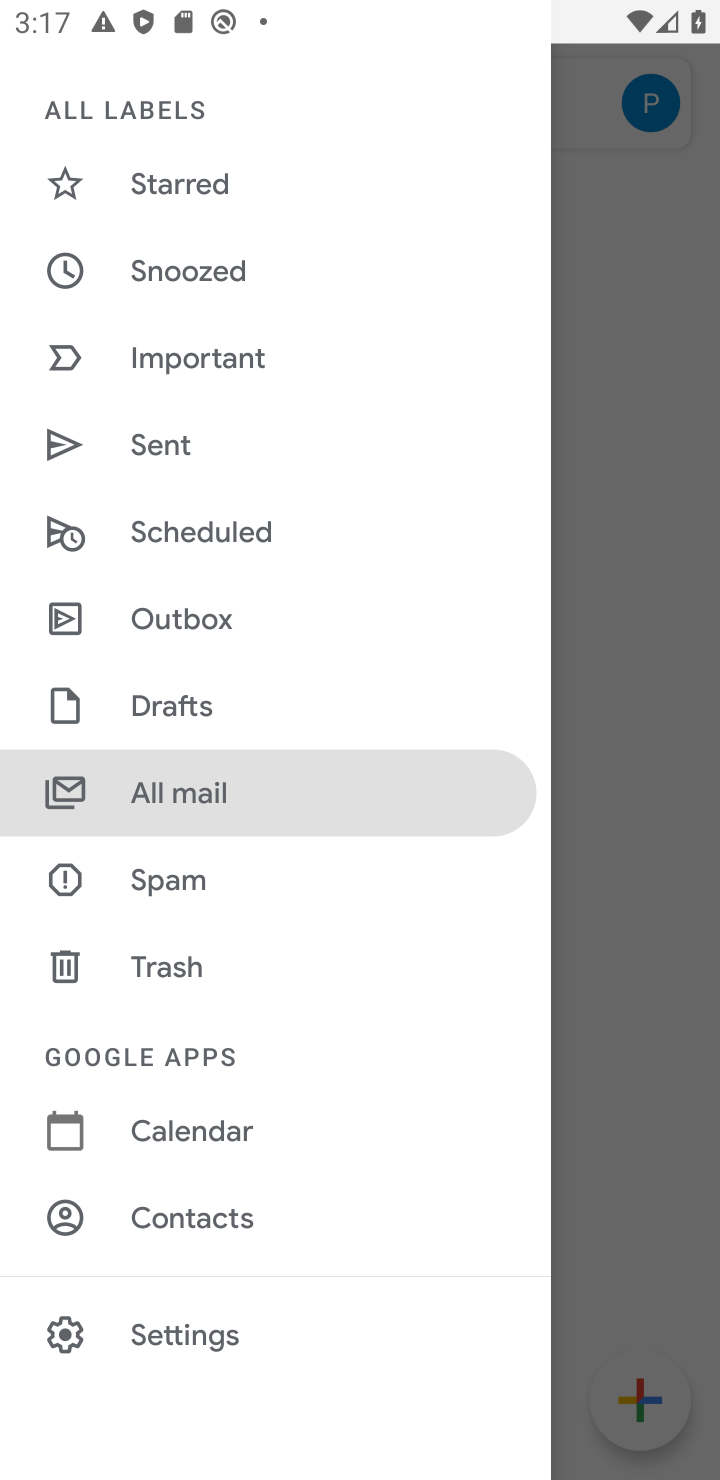
Step 30: click (199, 870)
Your task to perform on an android device: delete the emails in spam in the gmail app Image 31: 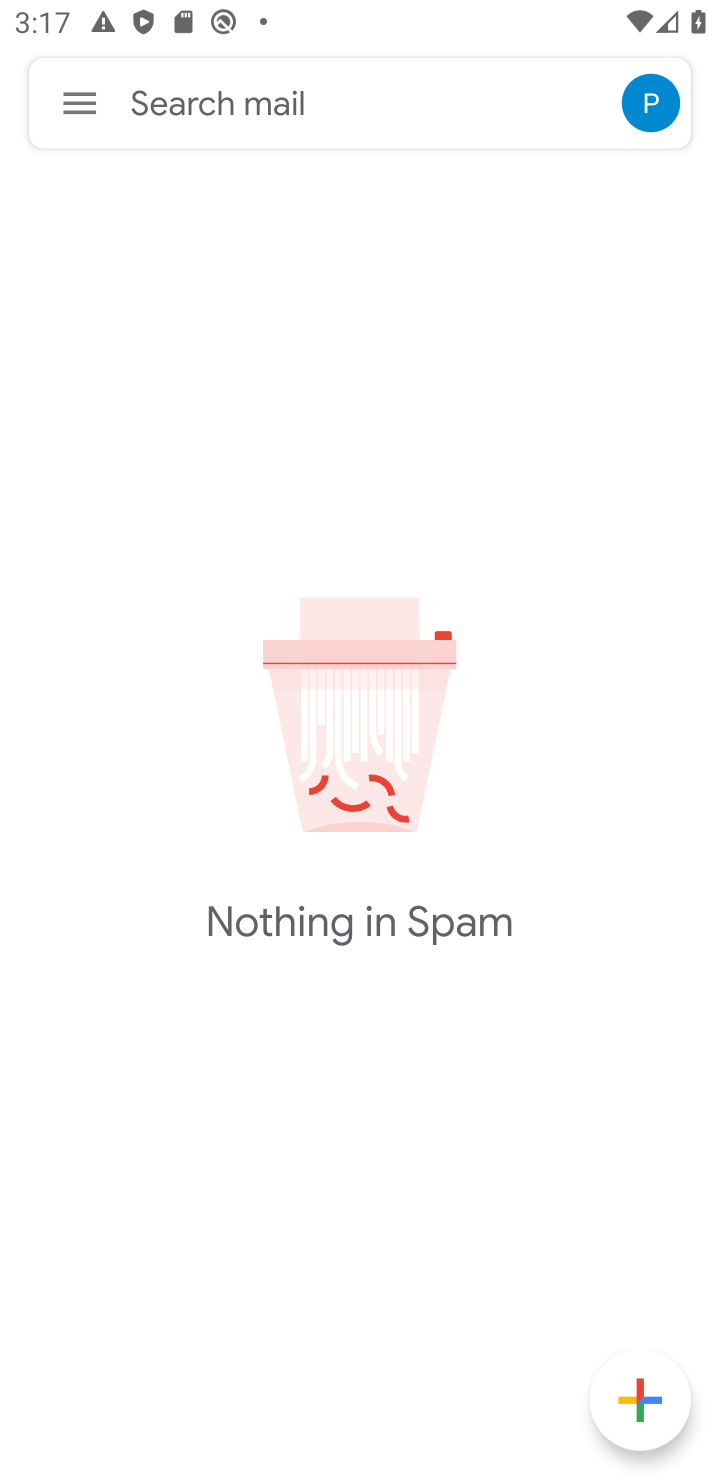
Step 31: task complete